Your task to perform on an android device: empty trash in the gmail app Image 0: 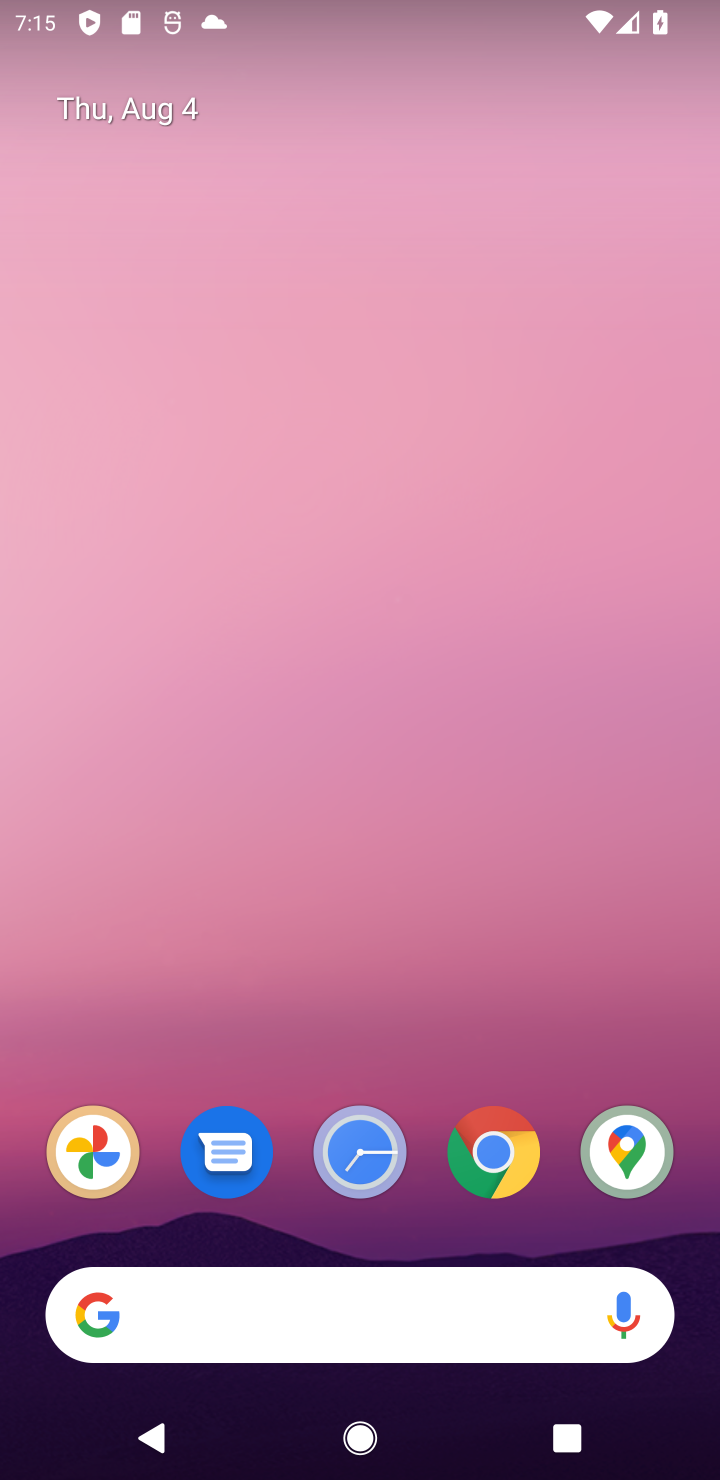
Step 0: press home button
Your task to perform on an android device: empty trash in the gmail app Image 1: 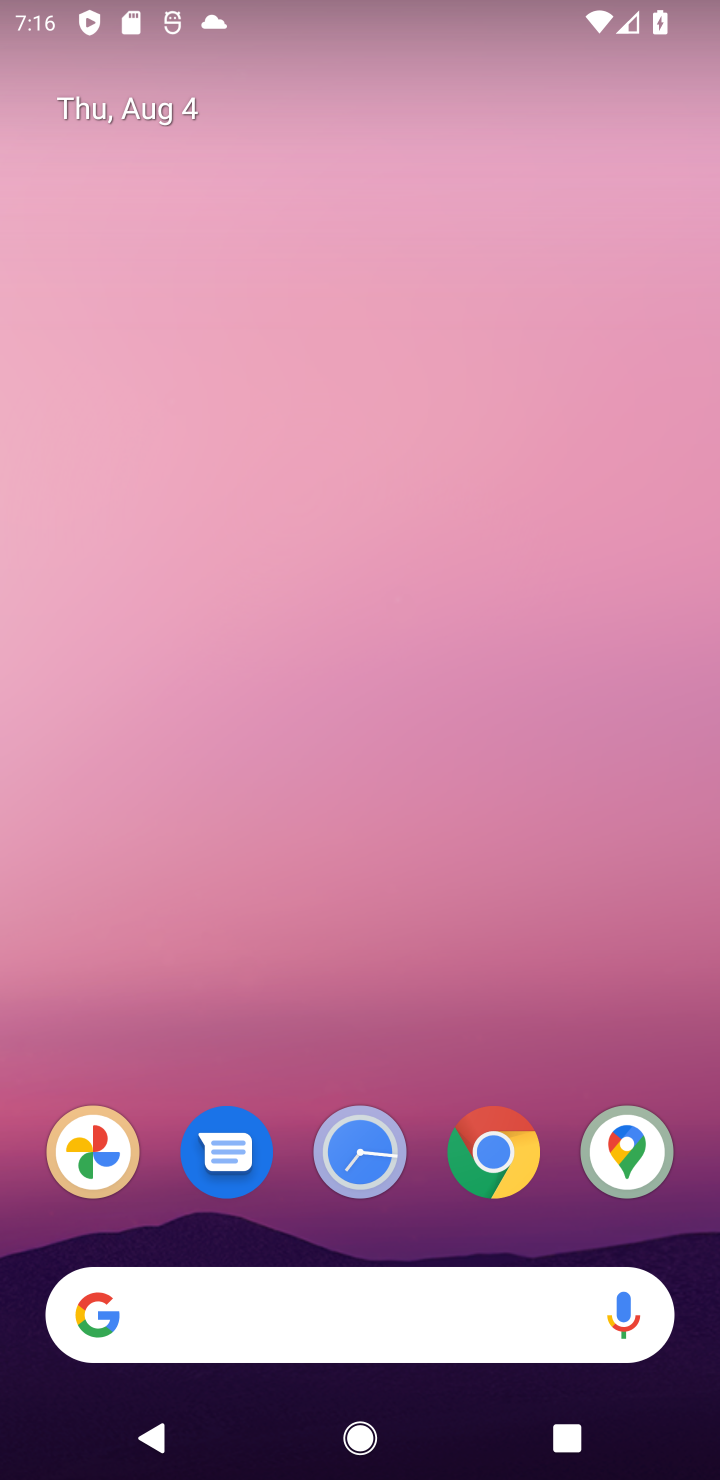
Step 1: drag from (136, 1006) to (438, 225)
Your task to perform on an android device: empty trash in the gmail app Image 2: 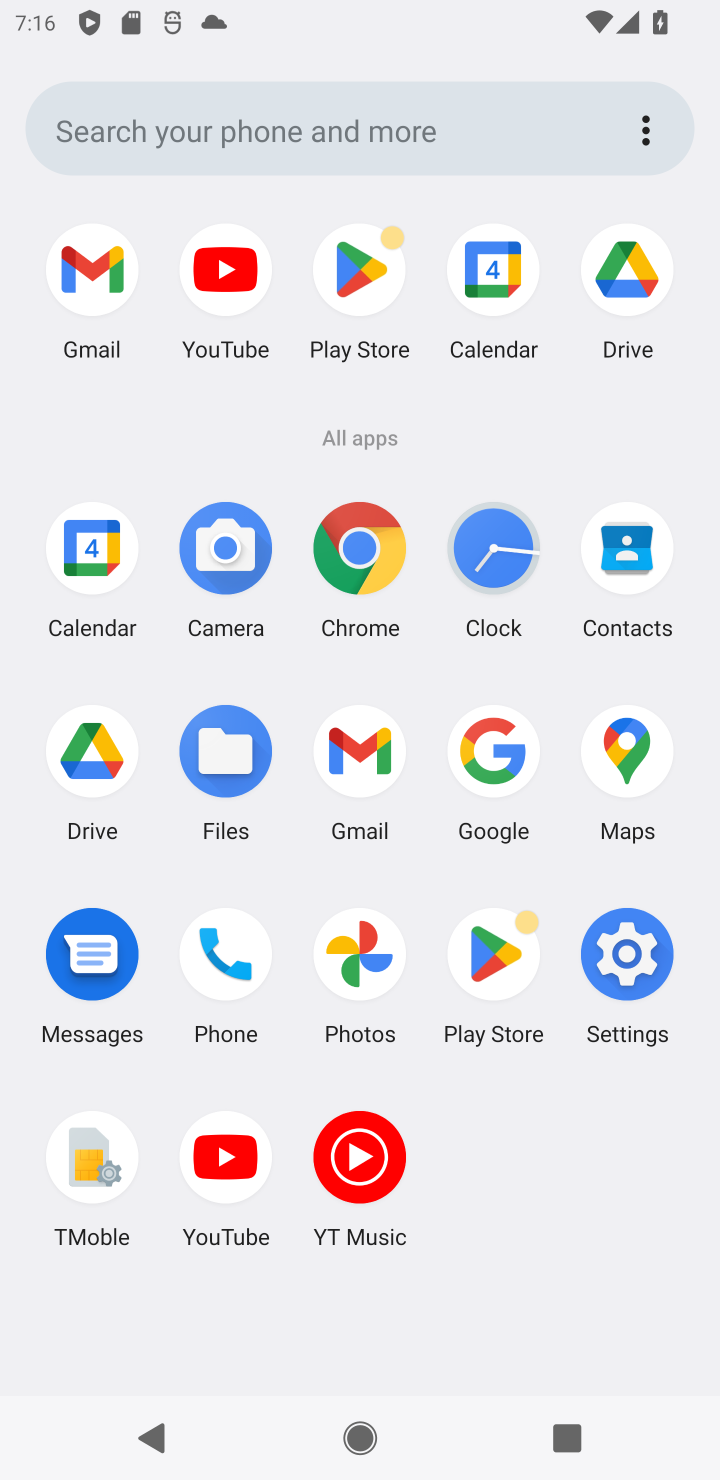
Step 2: click (390, 754)
Your task to perform on an android device: empty trash in the gmail app Image 3: 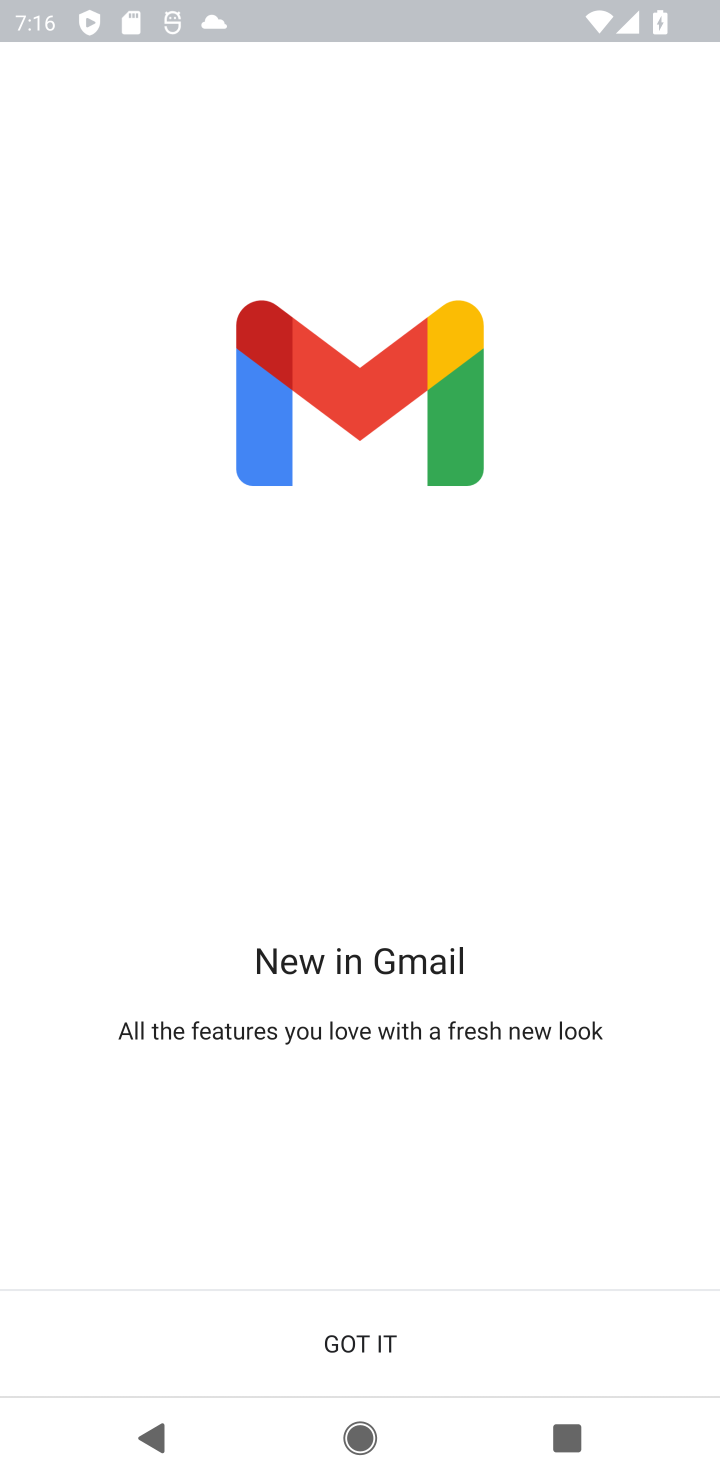
Step 3: click (402, 1331)
Your task to perform on an android device: empty trash in the gmail app Image 4: 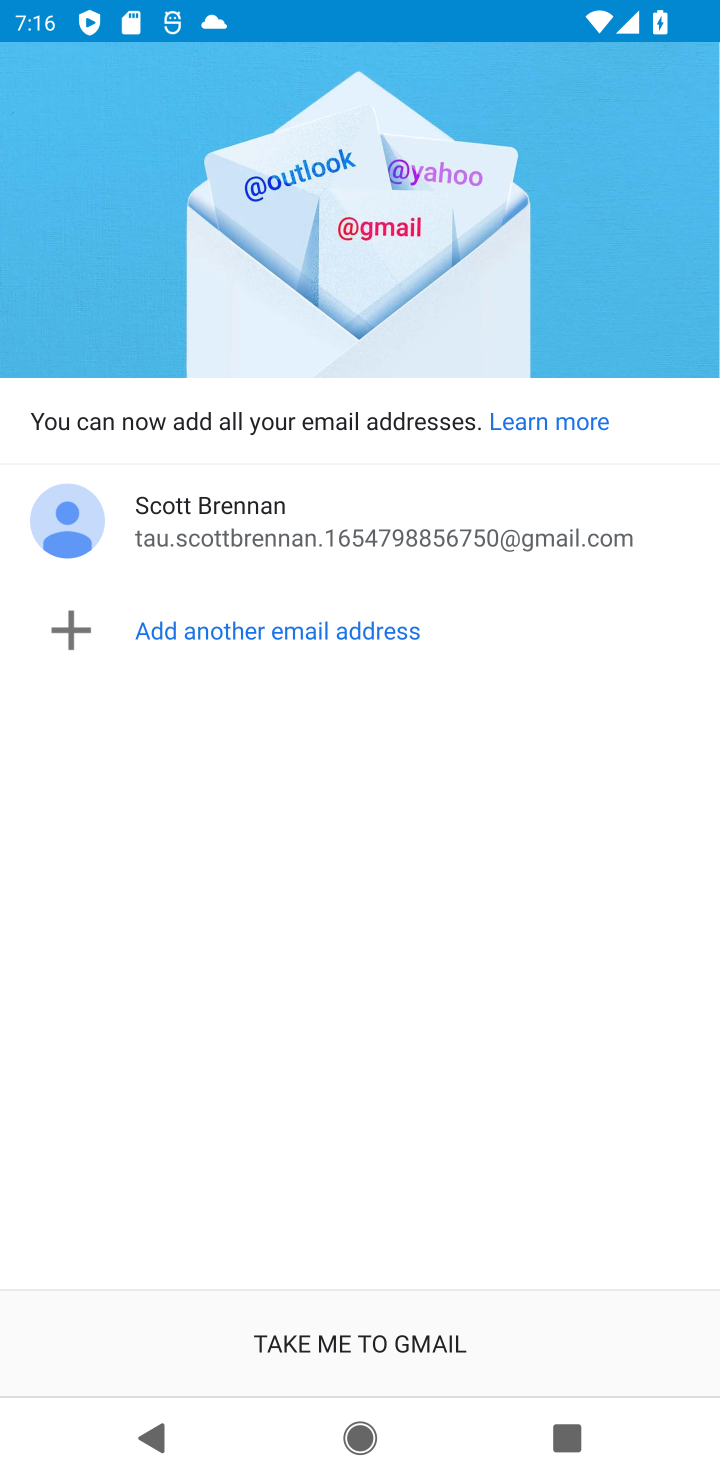
Step 4: click (289, 1331)
Your task to perform on an android device: empty trash in the gmail app Image 5: 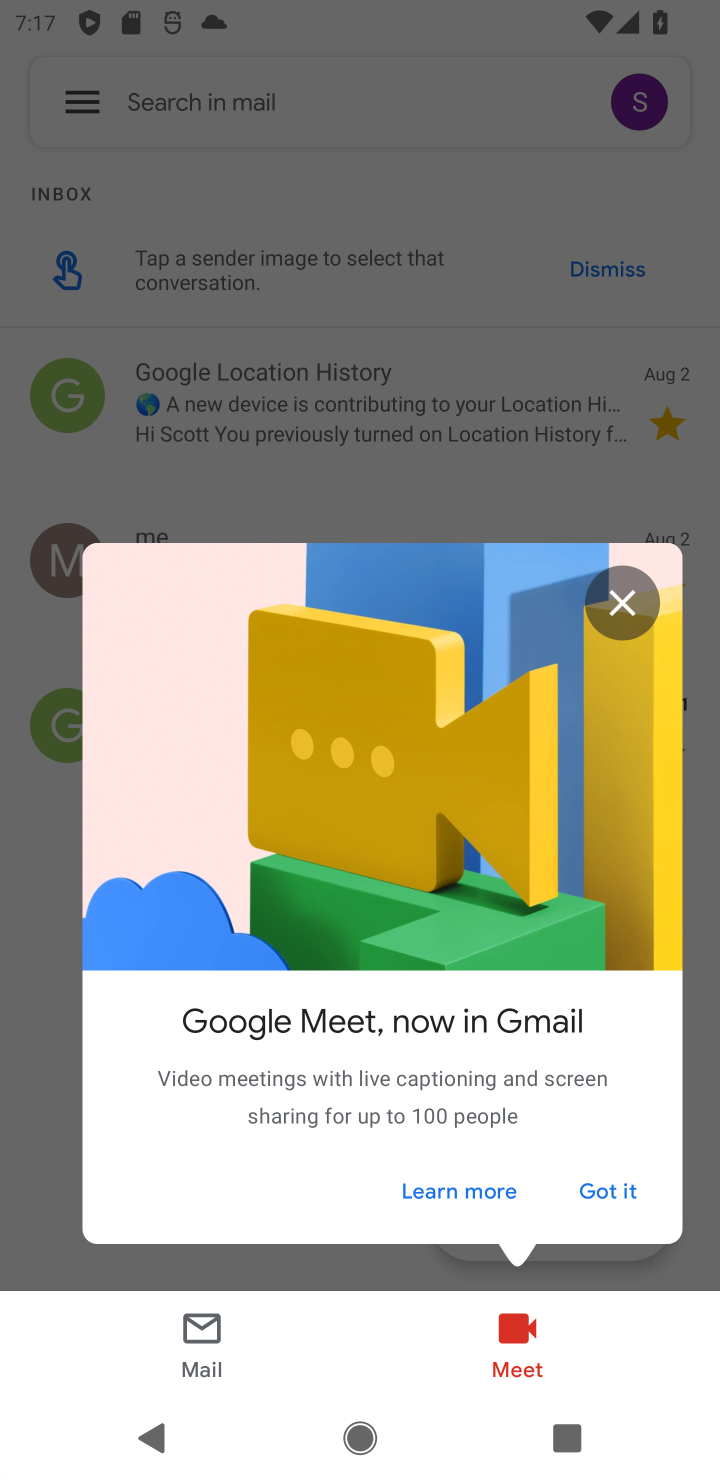
Step 5: click (601, 1193)
Your task to perform on an android device: empty trash in the gmail app Image 6: 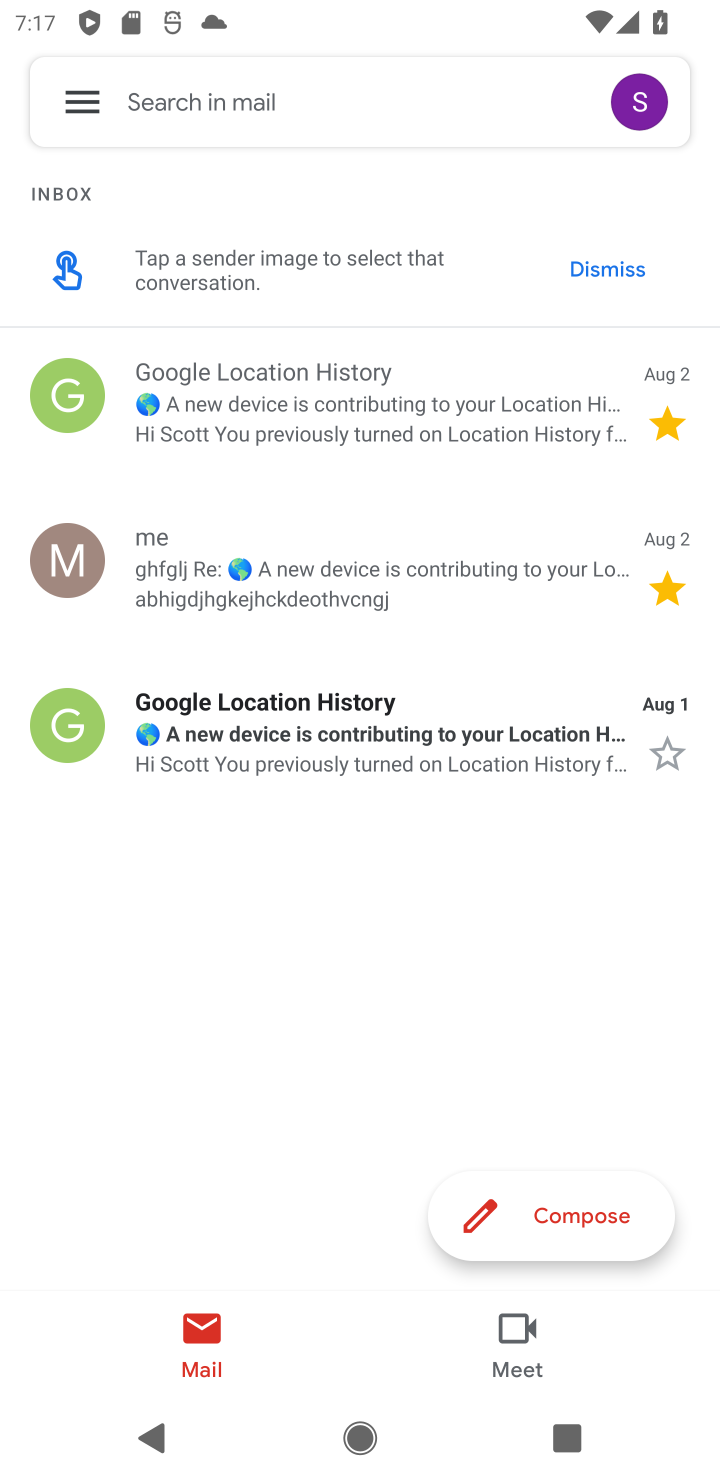
Step 6: click (82, 105)
Your task to perform on an android device: empty trash in the gmail app Image 7: 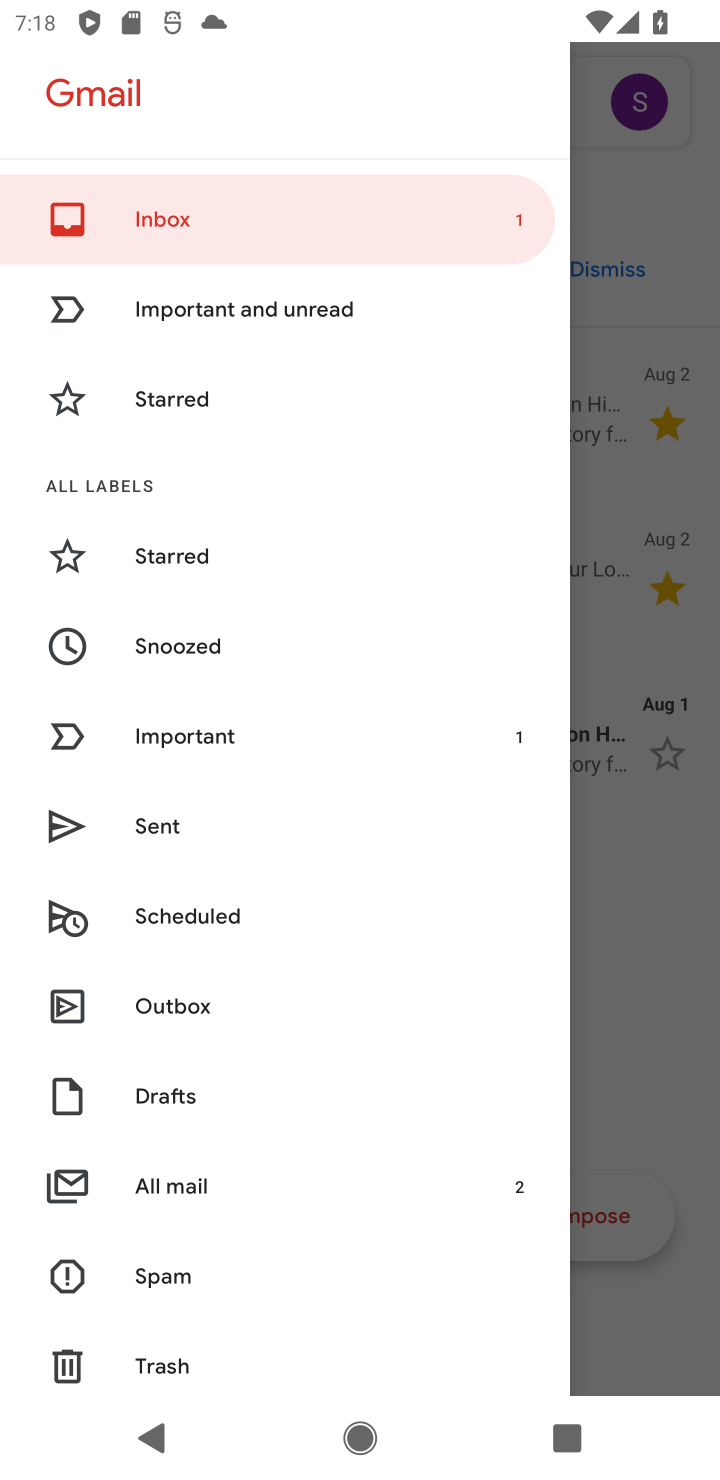
Step 7: click (164, 1352)
Your task to perform on an android device: empty trash in the gmail app Image 8: 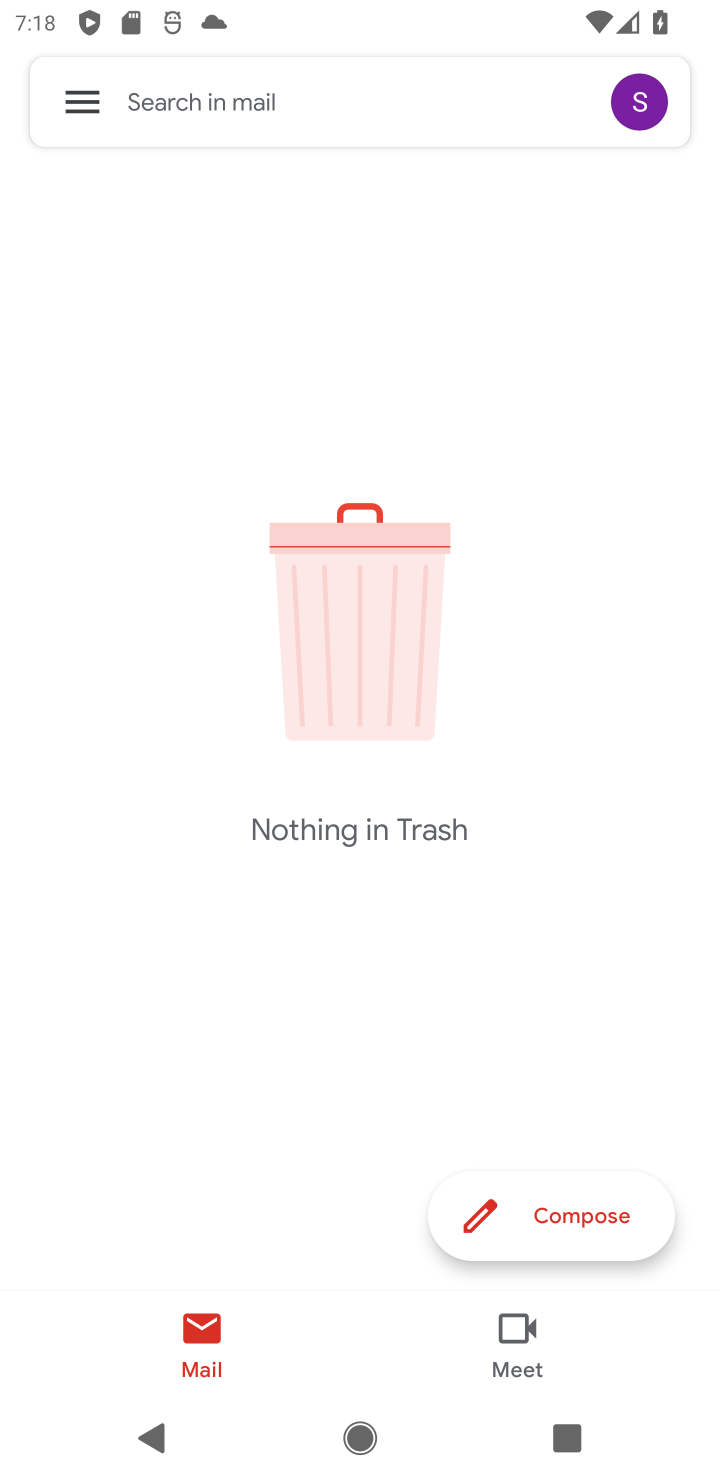
Step 8: task complete